Your task to perform on an android device: find photos in the google photos app Image 0: 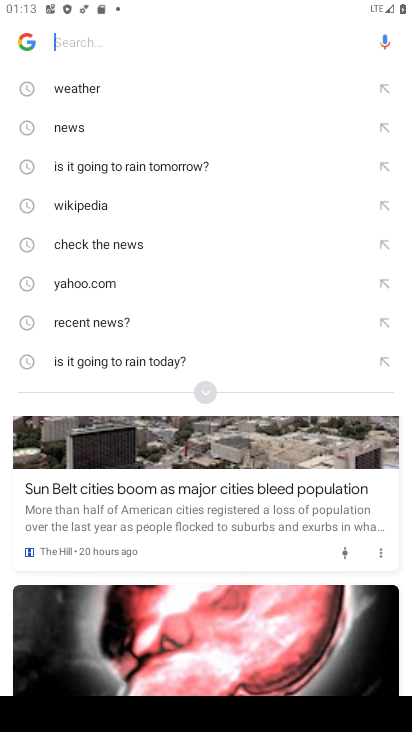
Step 0: press home button
Your task to perform on an android device: find photos in the google photos app Image 1: 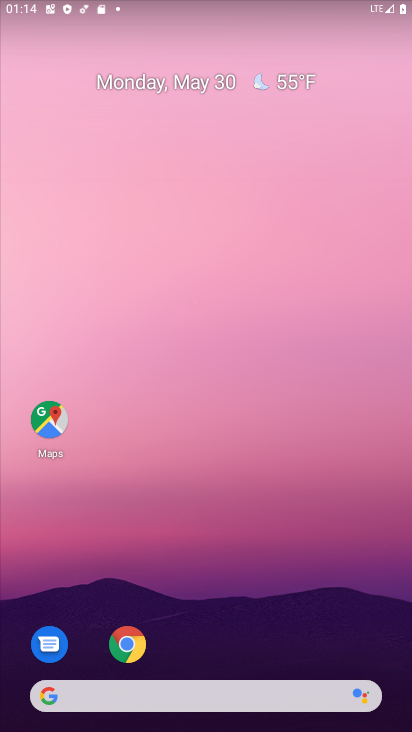
Step 1: drag from (301, 582) to (303, 126)
Your task to perform on an android device: find photos in the google photos app Image 2: 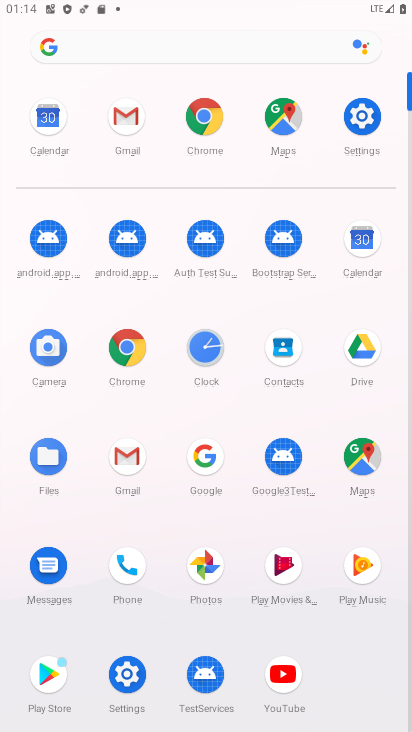
Step 2: click (212, 571)
Your task to perform on an android device: find photos in the google photos app Image 3: 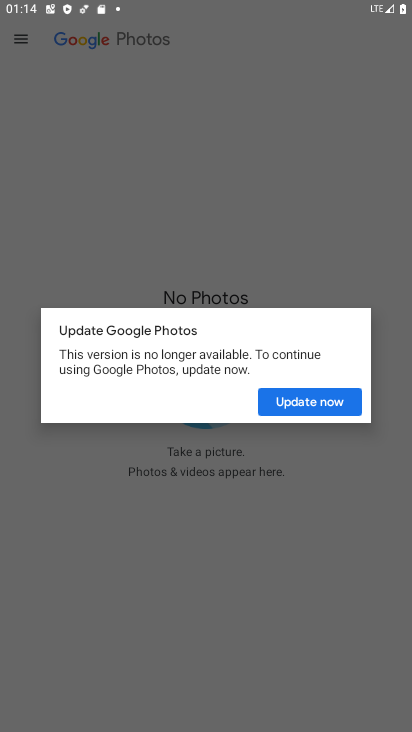
Step 3: click (310, 400)
Your task to perform on an android device: find photos in the google photos app Image 4: 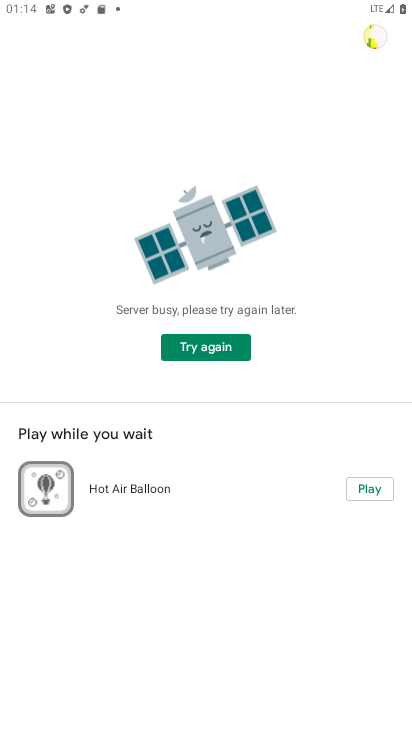
Step 4: task complete